Your task to perform on an android device: Open calendar and show me the second week of next month Image 0: 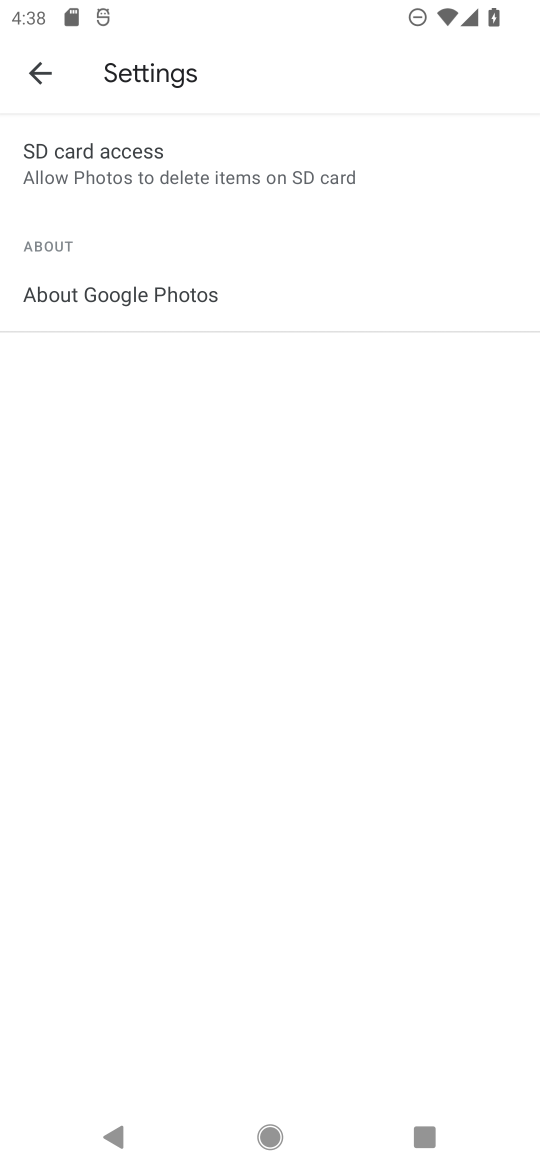
Step 0: press home button
Your task to perform on an android device: Open calendar and show me the second week of next month Image 1: 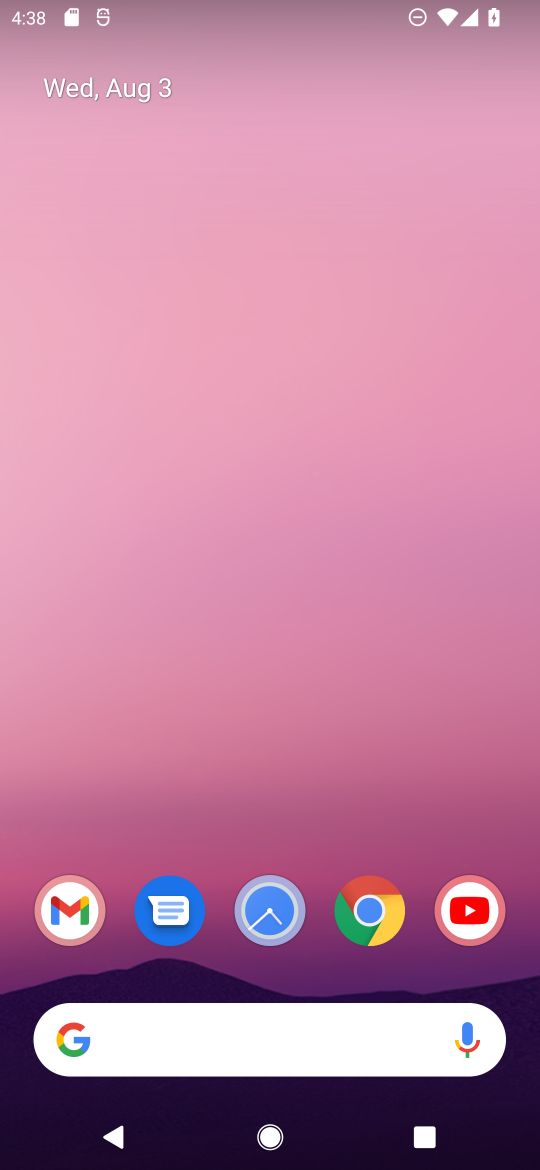
Step 1: drag from (3, 1115) to (276, 278)
Your task to perform on an android device: Open calendar and show me the second week of next month Image 2: 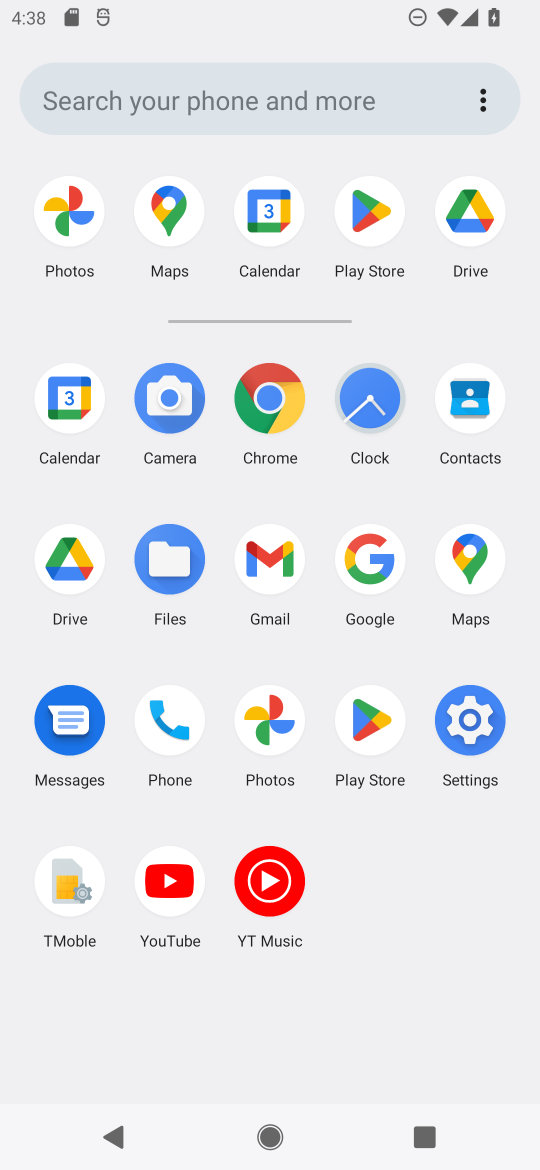
Step 2: click (75, 394)
Your task to perform on an android device: Open calendar and show me the second week of next month Image 3: 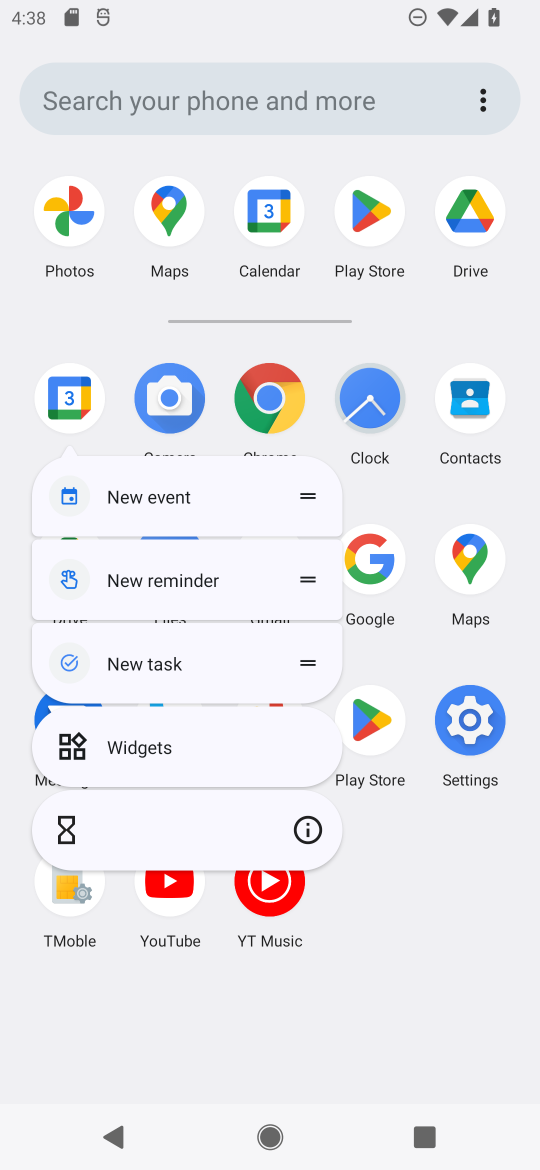
Step 3: click (79, 394)
Your task to perform on an android device: Open calendar and show me the second week of next month Image 4: 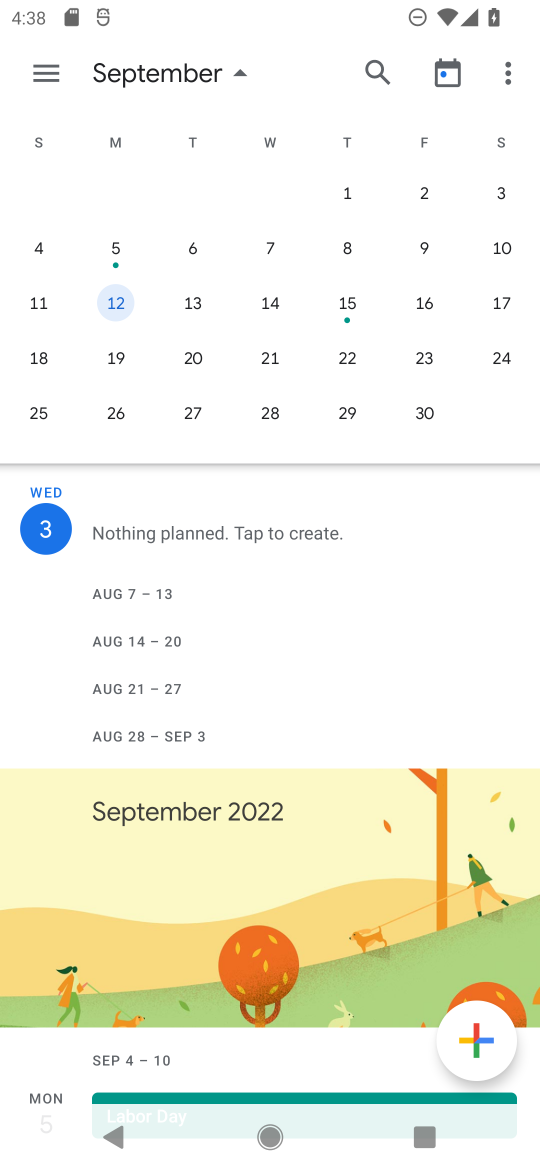
Step 4: click (130, 240)
Your task to perform on an android device: Open calendar and show me the second week of next month Image 5: 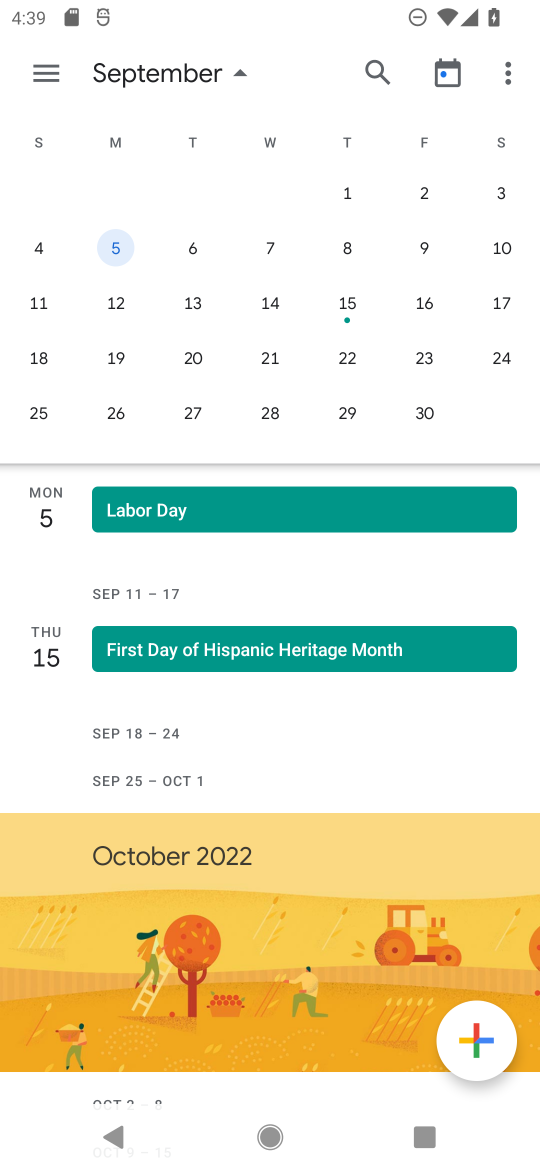
Step 5: task complete